Your task to perform on an android device: Open the calendar and show me this week's events Image 0: 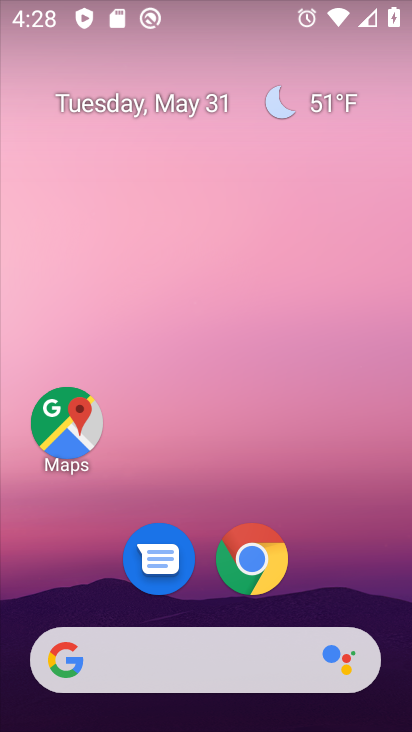
Step 0: drag from (326, 599) to (324, 69)
Your task to perform on an android device: Open the calendar and show me this week's events Image 1: 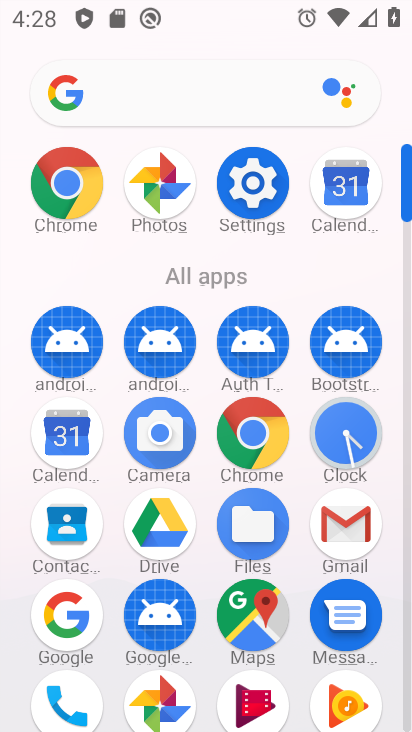
Step 1: click (67, 429)
Your task to perform on an android device: Open the calendar and show me this week's events Image 2: 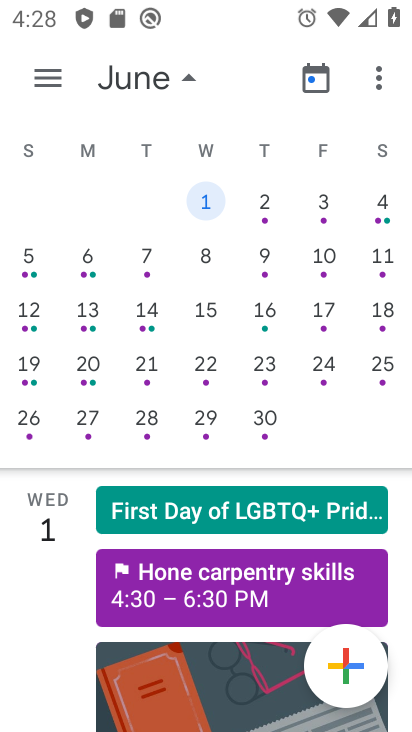
Step 2: drag from (77, 346) to (405, 445)
Your task to perform on an android device: Open the calendar and show me this week's events Image 3: 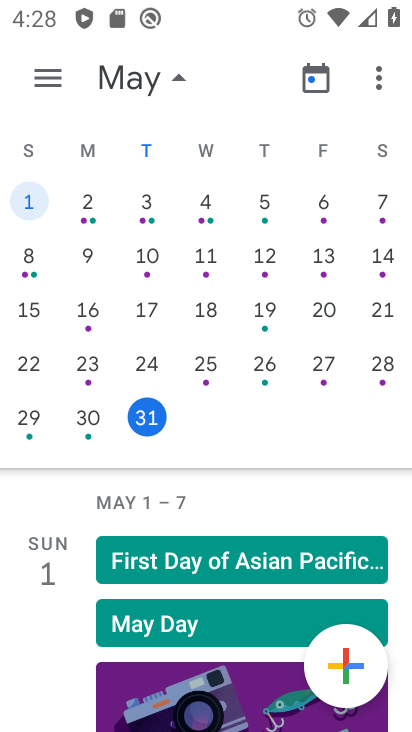
Step 3: click (141, 419)
Your task to perform on an android device: Open the calendar and show me this week's events Image 4: 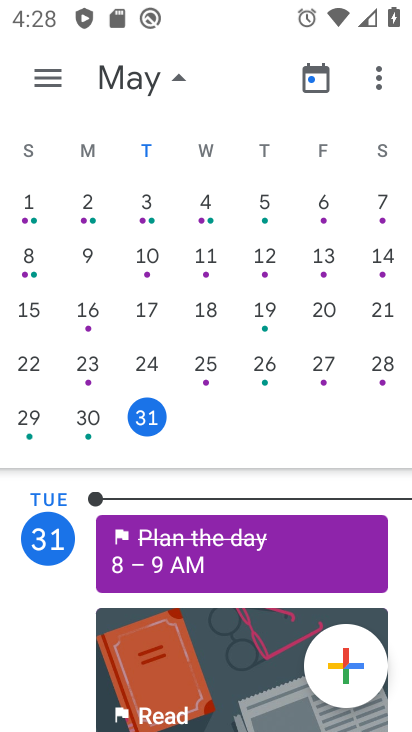
Step 4: task complete